Your task to perform on an android device: Search for Mexican restaurants on Maps Image 0: 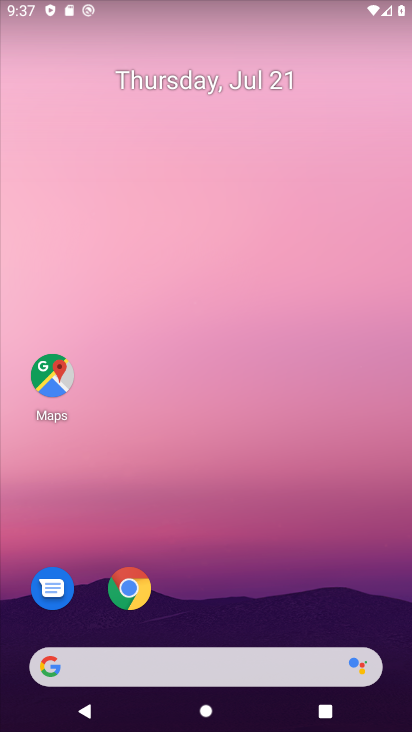
Step 0: click (56, 374)
Your task to perform on an android device: Search for Mexican restaurants on Maps Image 1: 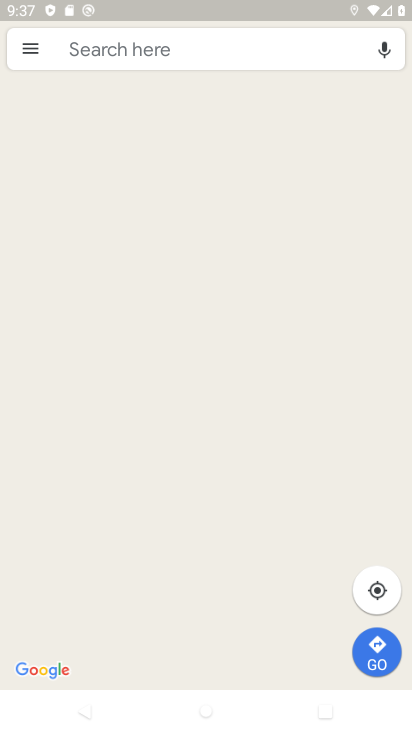
Step 1: click (138, 49)
Your task to perform on an android device: Search for Mexican restaurants on Maps Image 2: 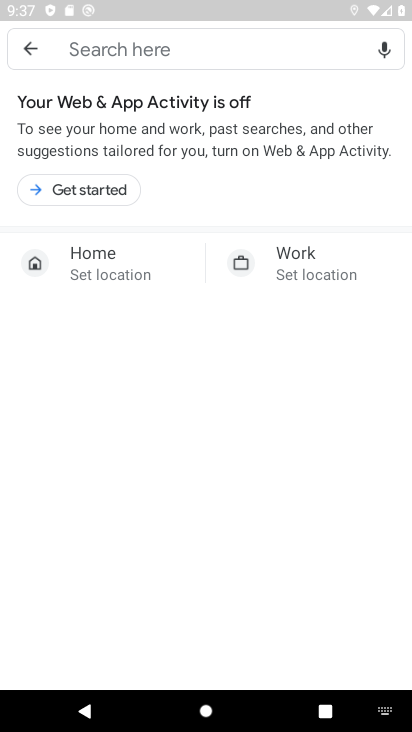
Step 2: click (131, 188)
Your task to perform on an android device: Search for Mexican restaurants on Maps Image 3: 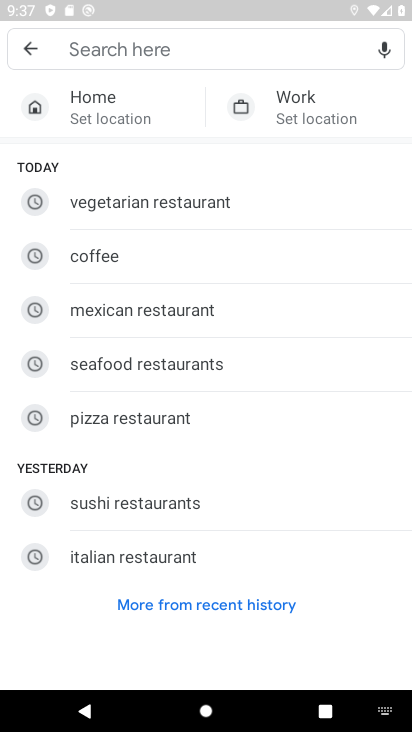
Step 3: click (156, 316)
Your task to perform on an android device: Search for Mexican restaurants on Maps Image 4: 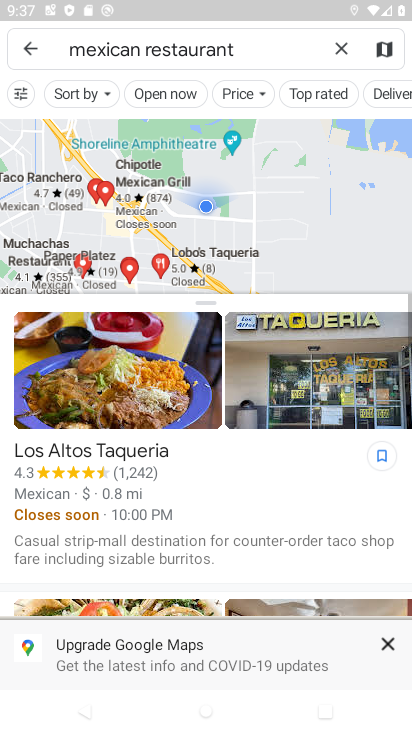
Step 4: task complete